Your task to perform on an android device: open app "Lyft - Rideshare, Bikes, Scooters & Transit" Image 0: 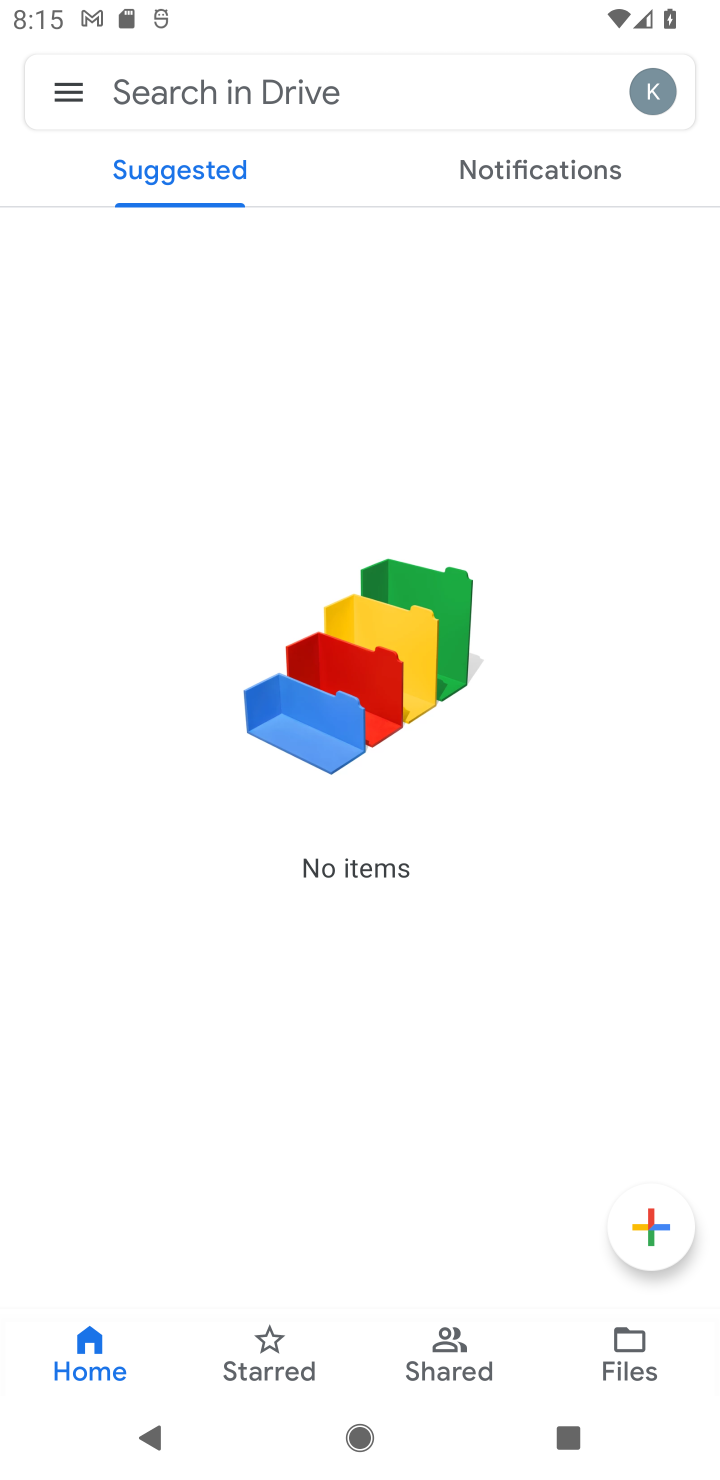
Step 0: press home button
Your task to perform on an android device: open app "Lyft - Rideshare, Bikes, Scooters & Transit" Image 1: 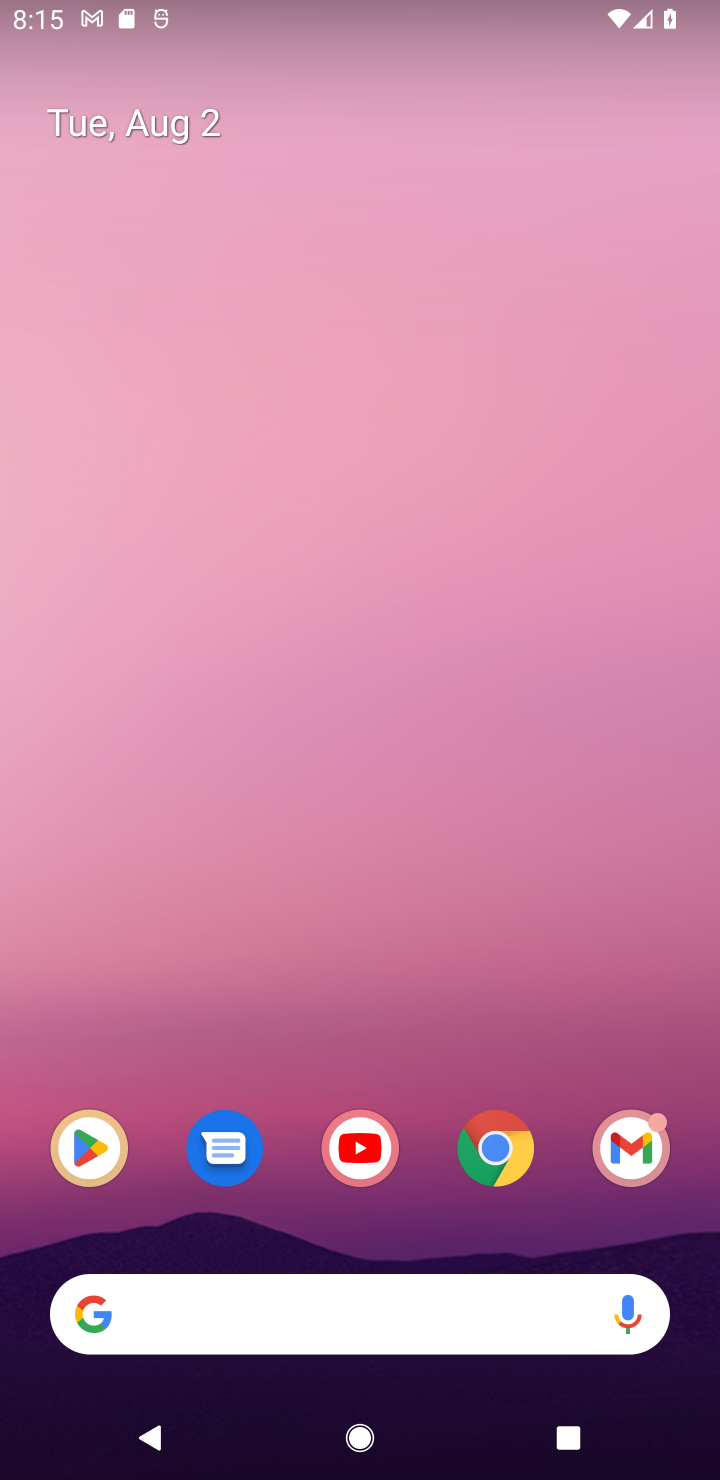
Step 1: drag from (358, 972) to (104, 101)
Your task to perform on an android device: open app "Lyft - Rideshare, Bikes, Scooters & Transit" Image 2: 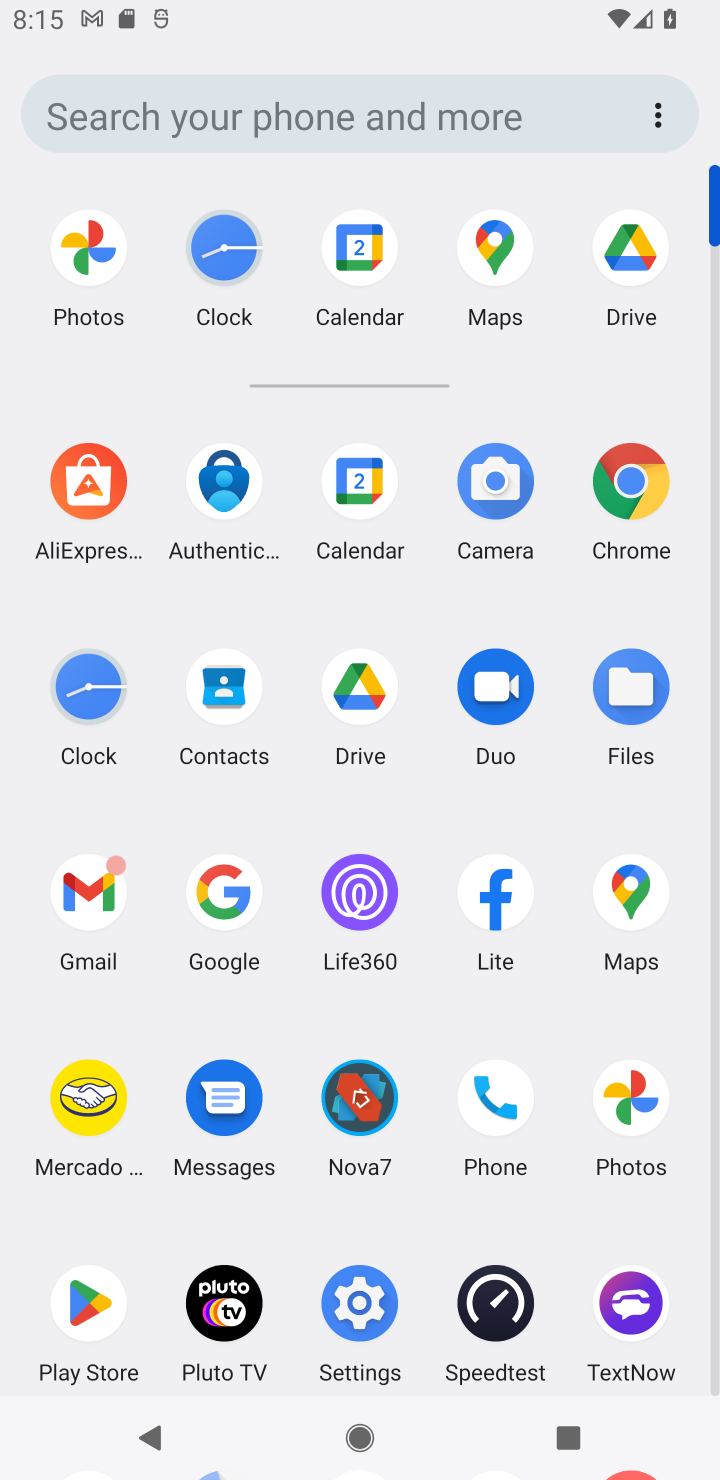
Step 2: click (96, 1299)
Your task to perform on an android device: open app "Lyft - Rideshare, Bikes, Scooters & Transit" Image 3: 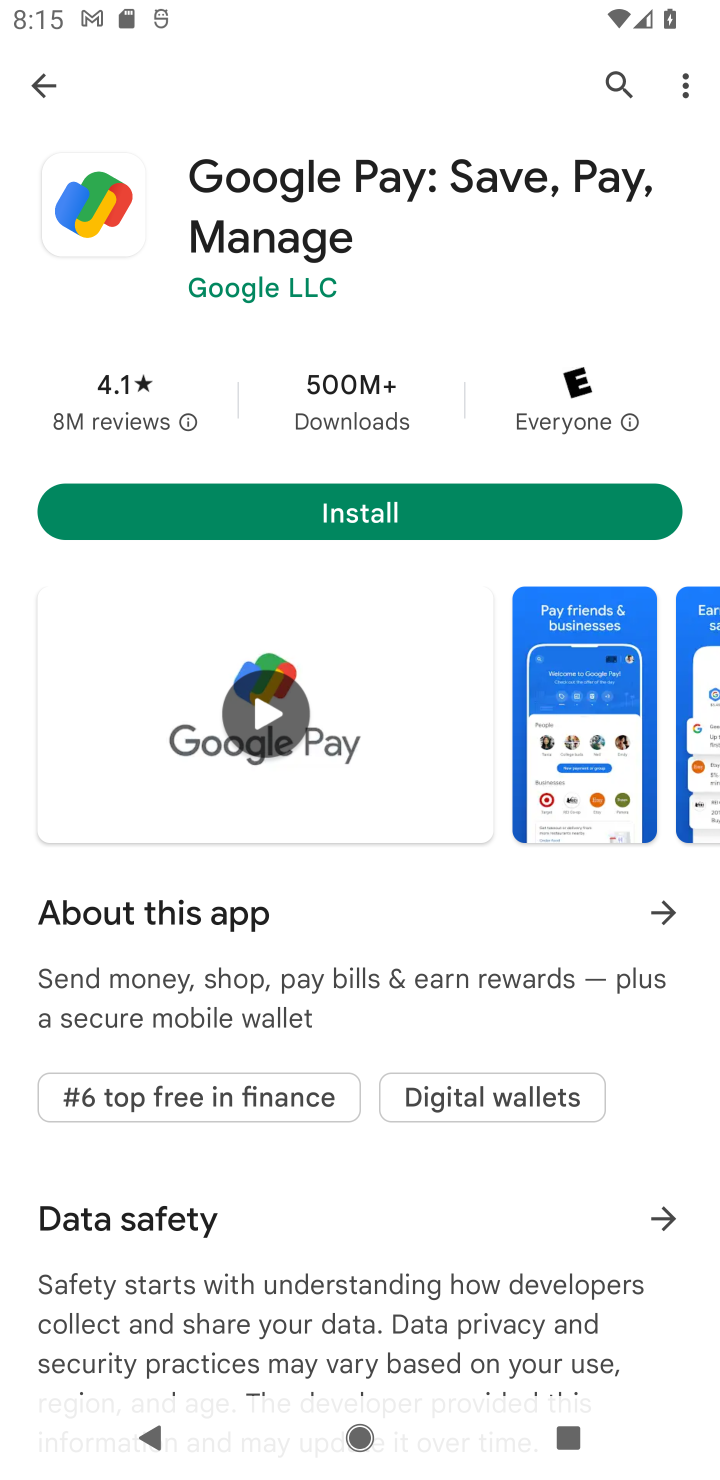
Step 3: press back button
Your task to perform on an android device: open app "Lyft - Rideshare, Bikes, Scooters & Transit" Image 4: 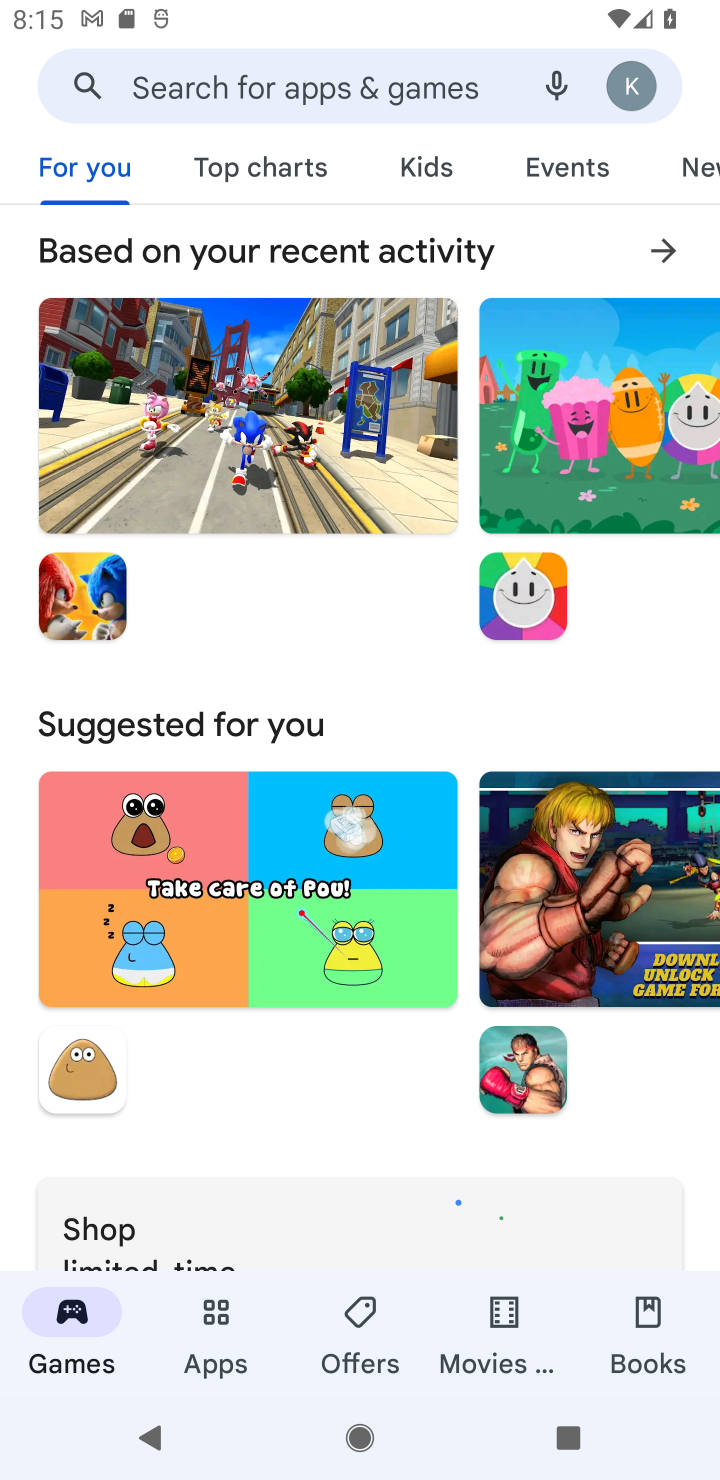
Step 4: click (235, 68)
Your task to perform on an android device: open app "Lyft - Rideshare, Bikes, Scooters & Transit" Image 5: 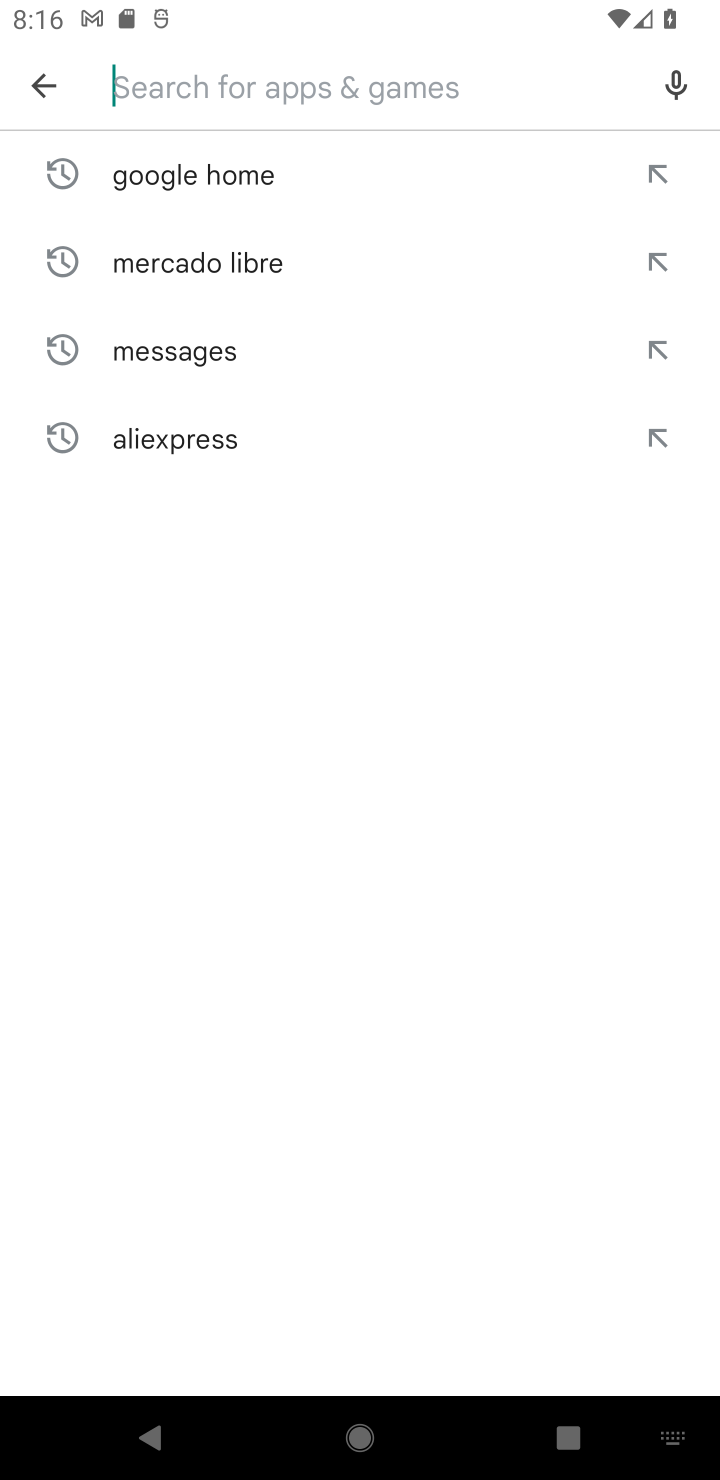
Step 5: type "Lyft - Rideshare, Bikes, Scooters & Transit"
Your task to perform on an android device: open app "Lyft - Rideshare, Bikes, Scooters & Transit" Image 6: 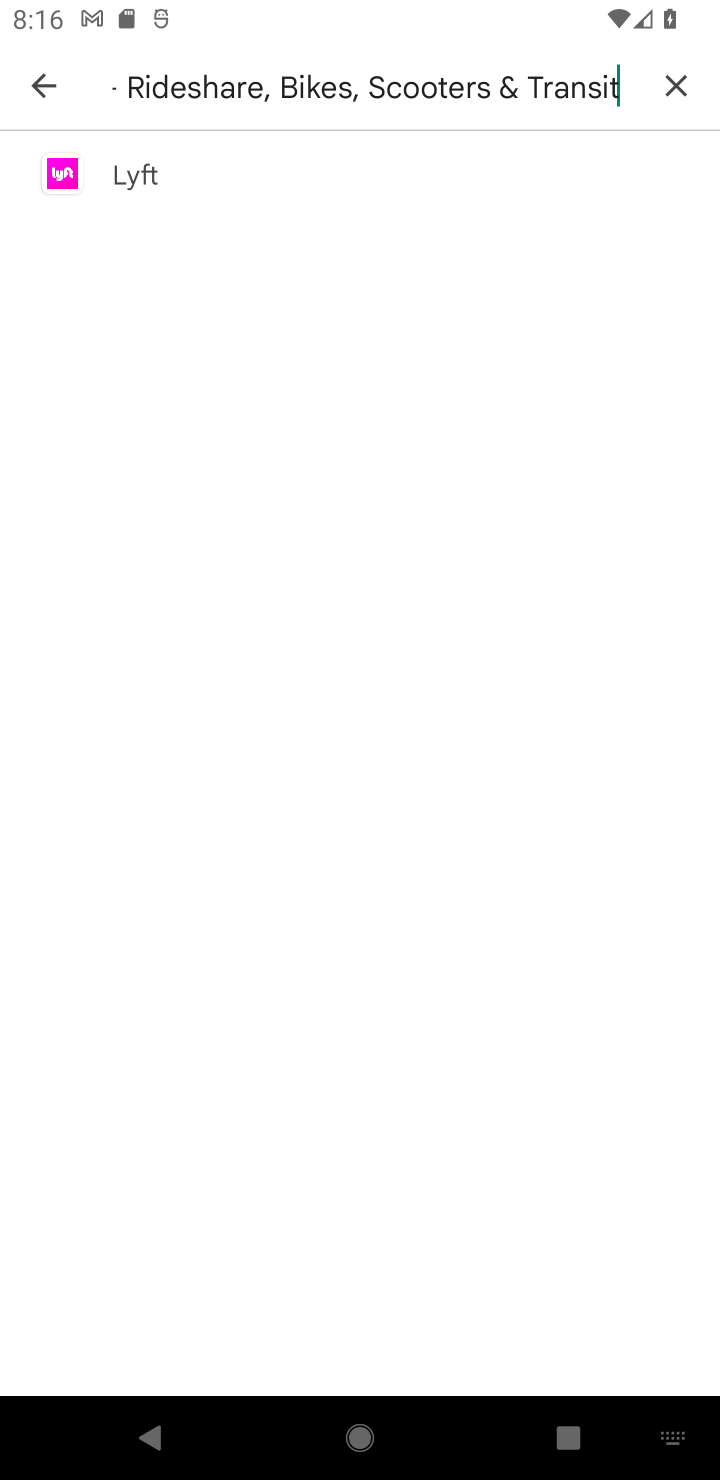
Step 6: click (146, 171)
Your task to perform on an android device: open app "Lyft - Rideshare, Bikes, Scooters & Transit" Image 7: 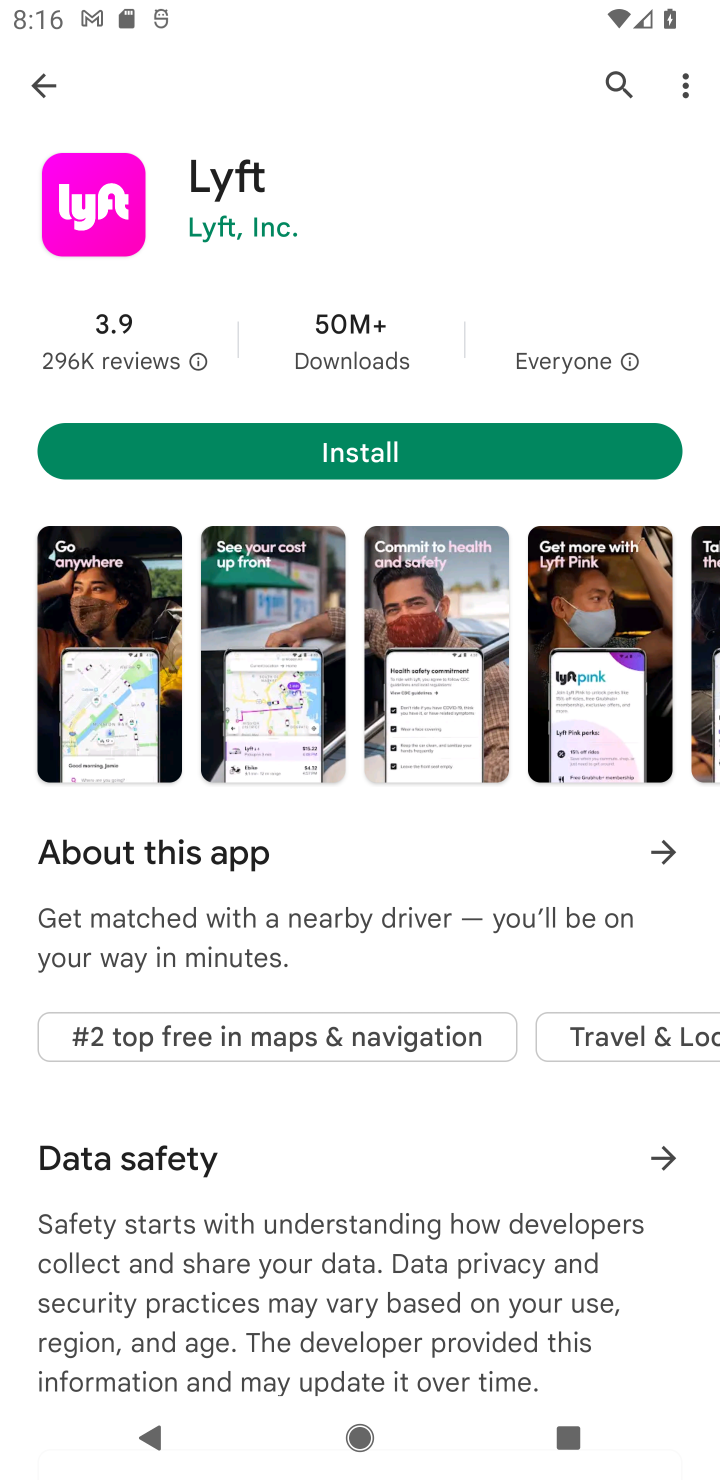
Step 7: task complete